Your task to perform on an android device: What's US dollar exchange rate against the South Korean Won? Image 0: 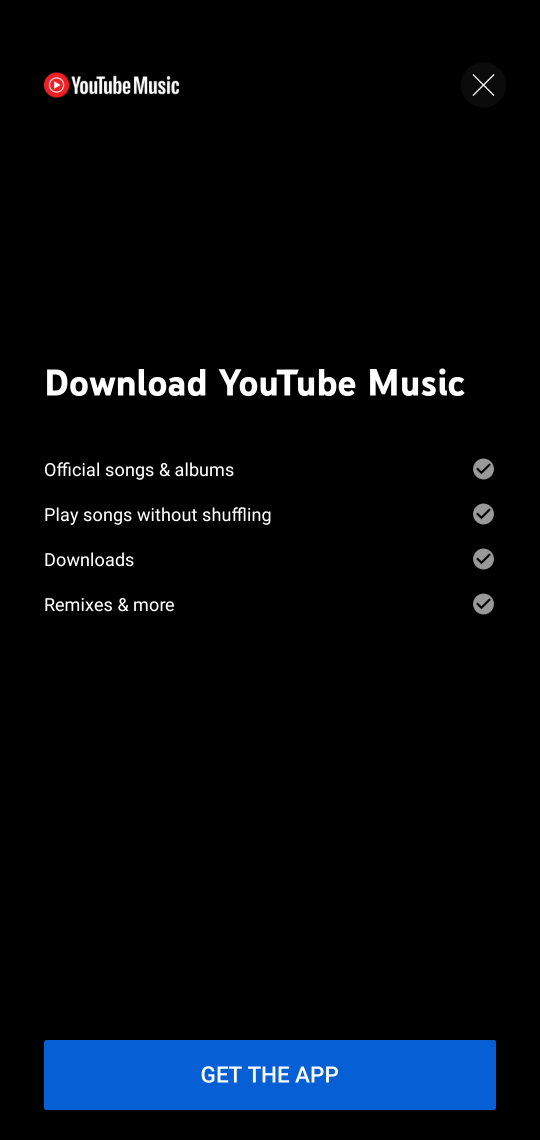
Step 0: press home button
Your task to perform on an android device: What's US dollar exchange rate against the South Korean Won? Image 1: 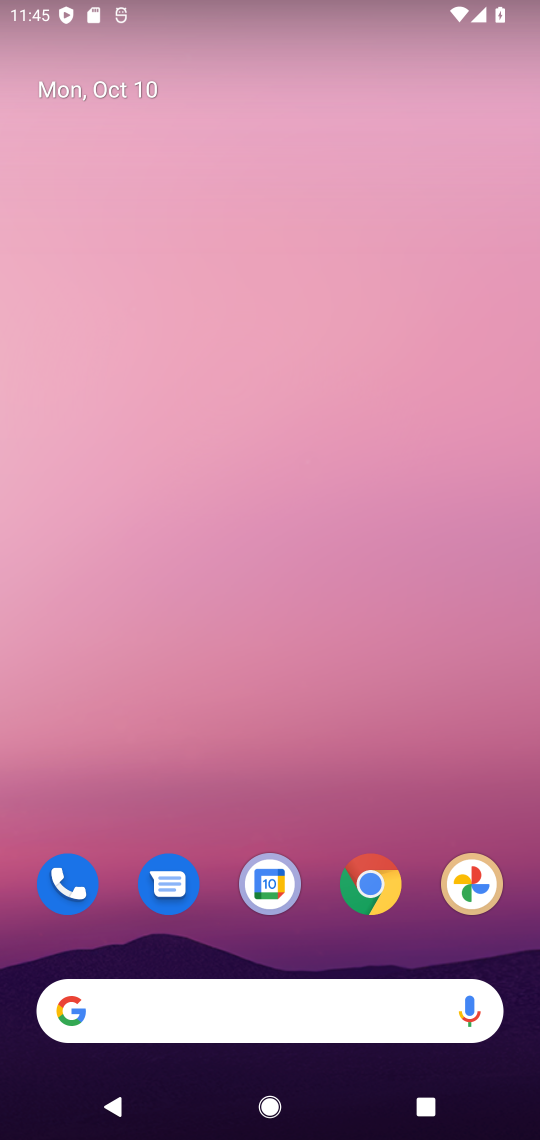
Step 1: drag from (304, 697) to (306, 334)
Your task to perform on an android device: What's US dollar exchange rate against the South Korean Won? Image 2: 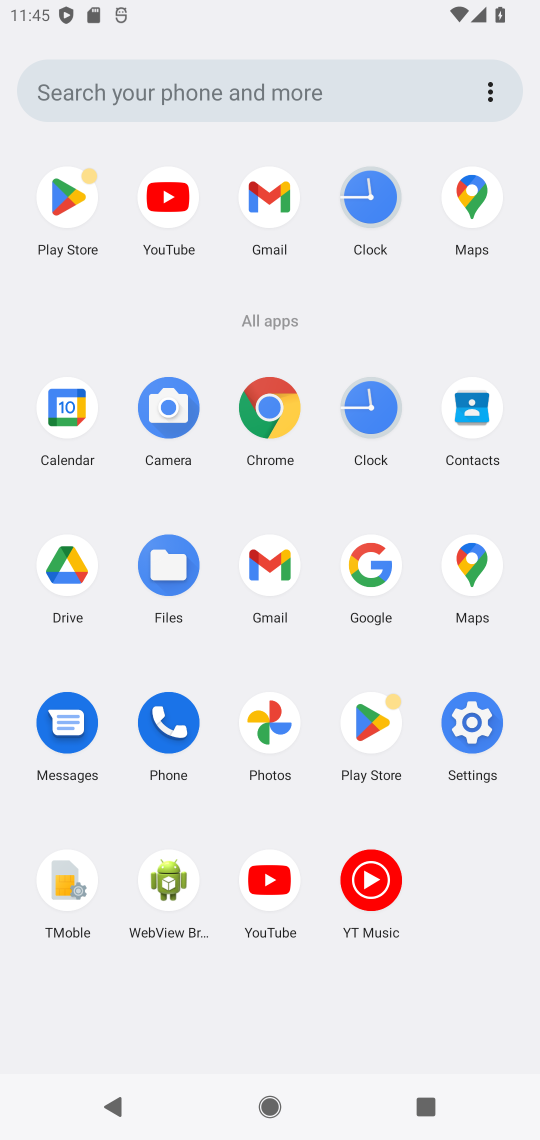
Step 2: click (266, 405)
Your task to perform on an android device: What's US dollar exchange rate against the South Korean Won? Image 3: 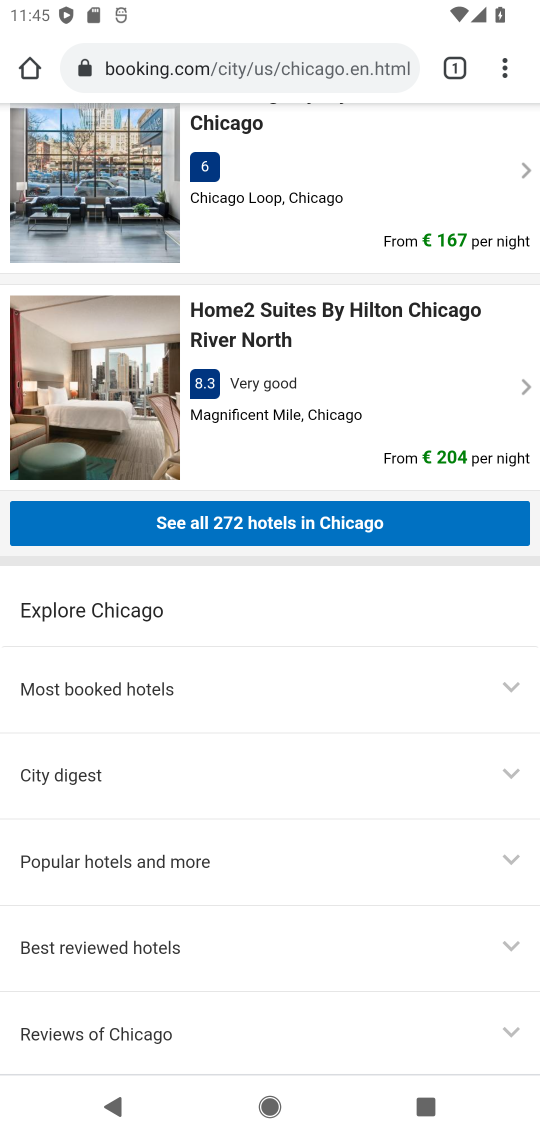
Step 3: click (272, 62)
Your task to perform on an android device: What's US dollar exchange rate against the South Korean Won? Image 4: 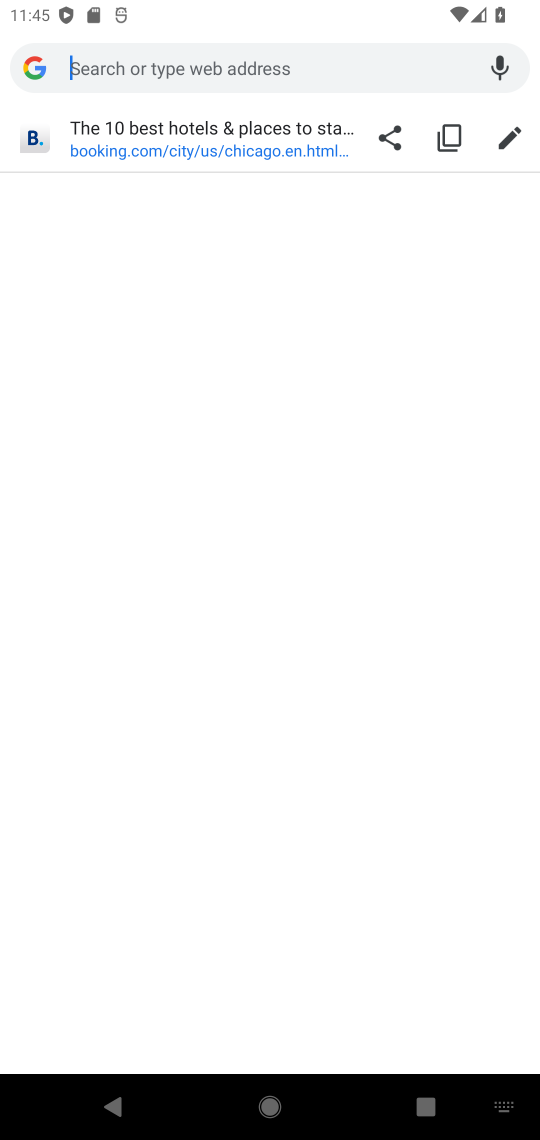
Step 4: type "US dollar exchange rate against South Korea"
Your task to perform on an android device: What's US dollar exchange rate against the South Korean Won? Image 5: 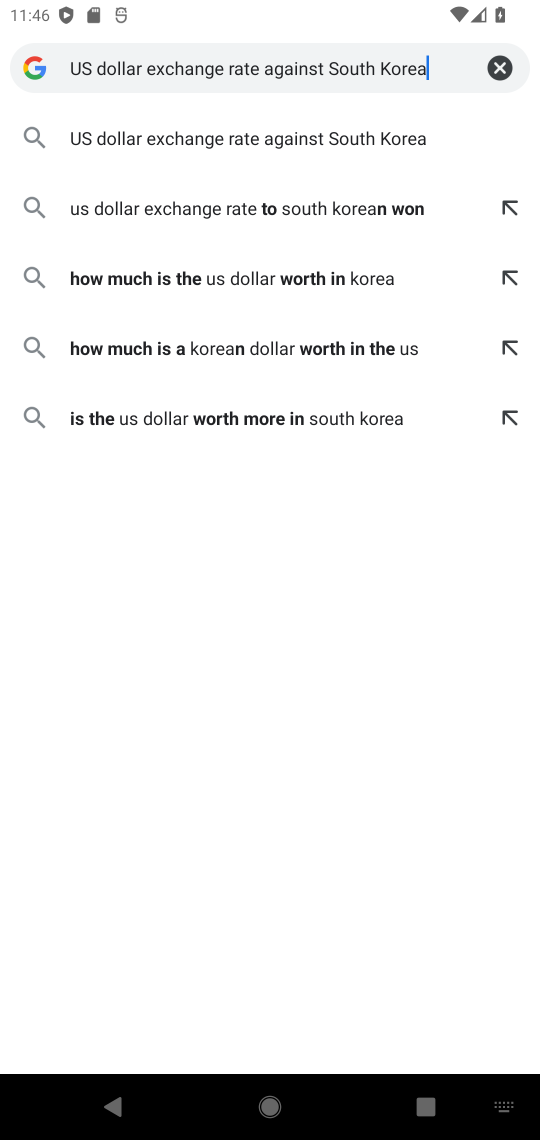
Step 5: press enter
Your task to perform on an android device: What's US dollar exchange rate against the South Korean Won? Image 6: 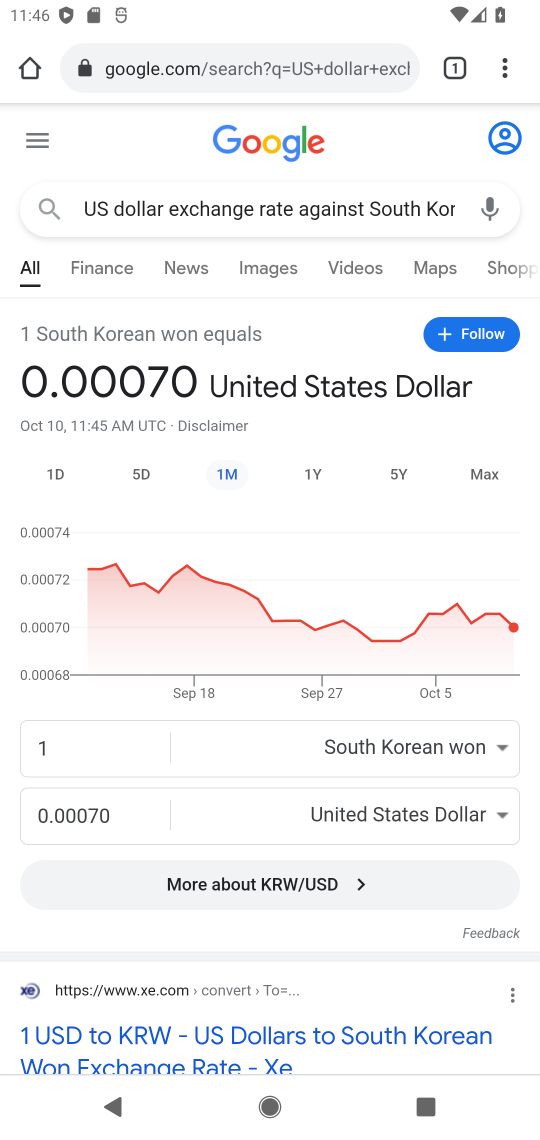
Step 6: task complete